Your task to perform on an android device: toggle javascript in the chrome app Image 0: 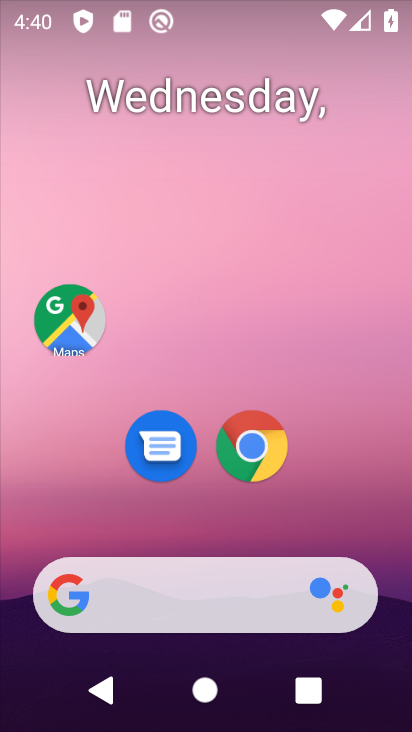
Step 0: click (253, 454)
Your task to perform on an android device: toggle javascript in the chrome app Image 1: 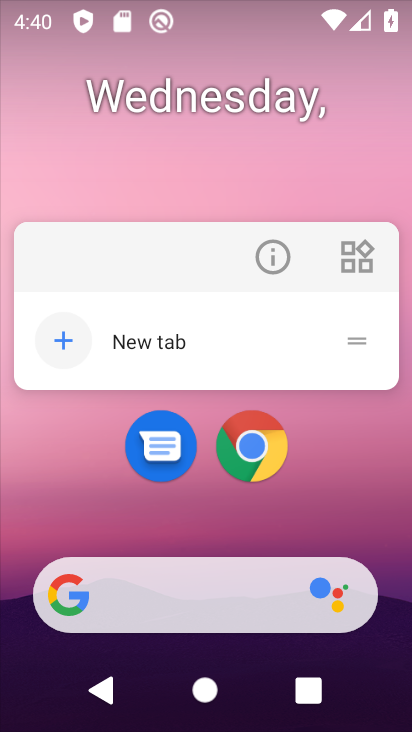
Step 1: click (253, 454)
Your task to perform on an android device: toggle javascript in the chrome app Image 2: 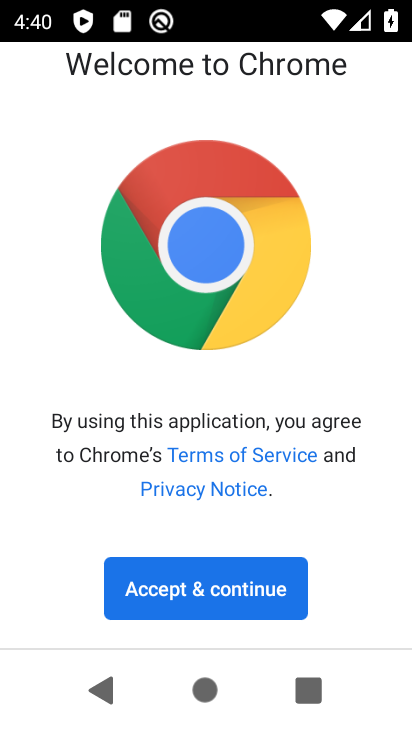
Step 2: click (161, 581)
Your task to perform on an android device: toggle javascript in the chrome app Image 3: 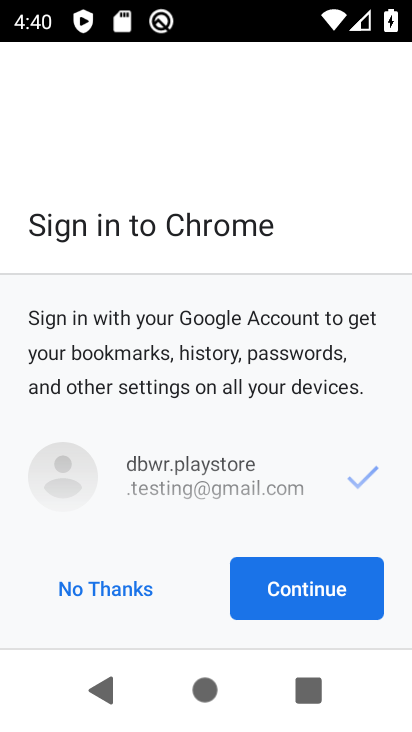
Step 3: click (266, 600)
Your task to perform on an android device: toggle javascript in the chrome app Image 4: 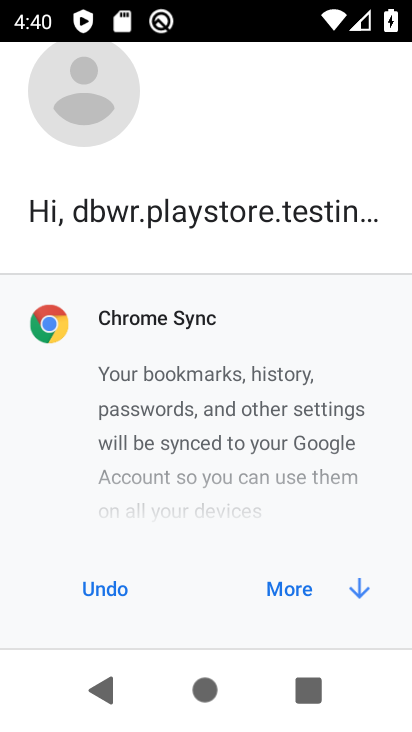
Step 4: click (265, 597)
Your task to perform on an android device: toggle javascript in the chrome app Image 5: 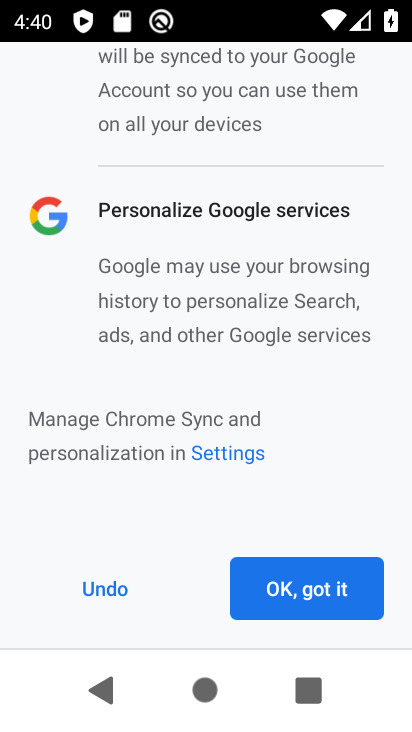
Step 5: click (334, 582)
Your task to perform on an android device: toggle javascript in the chrome app Image 6: 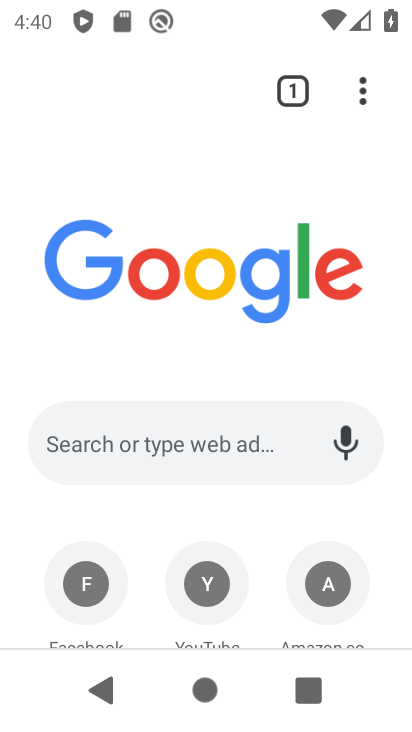
Step 6: click (353, 82)
Your task to perform on an android device: toggle javascript in the chrome app Image 7: 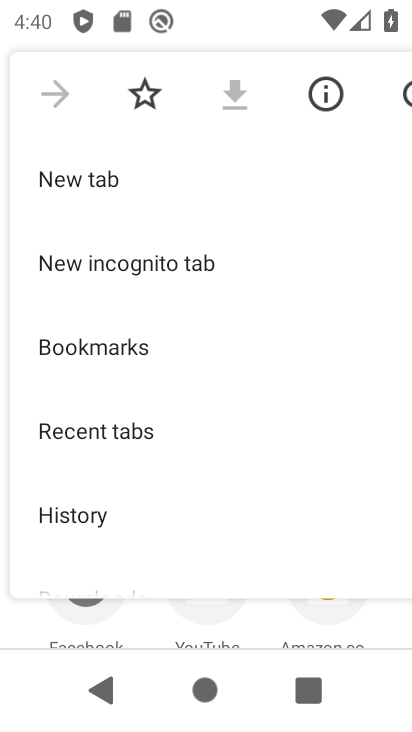
Step 7: drag from (165, 549) to (171, 170)
Your task to perform on an android device: toggle javascript in the chrome app Image 8: 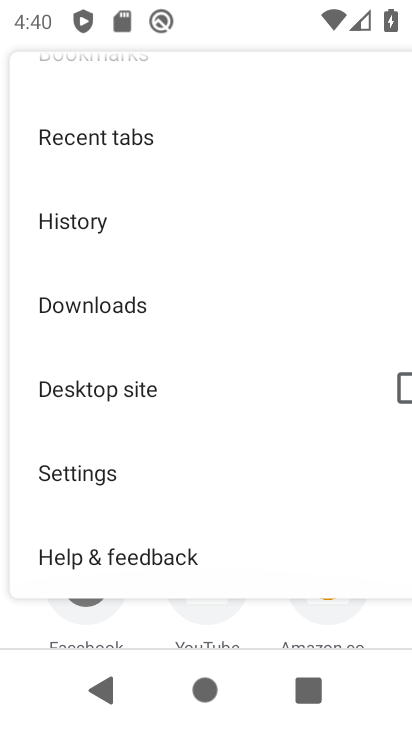
Step 8: click (84, 487)
Your task to perform on an android device: toggle javascript in the chrome app Image 9: 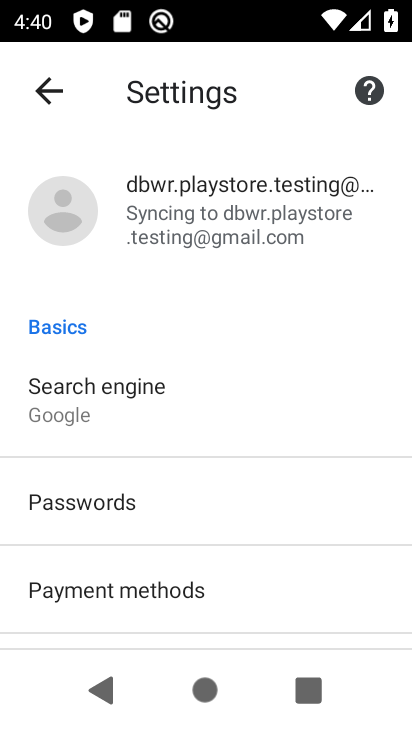
Step 9: drag from (234, 575) to (262, 116)
Your task to perform on an android device: toggle javascript in the chrome app Image 10: 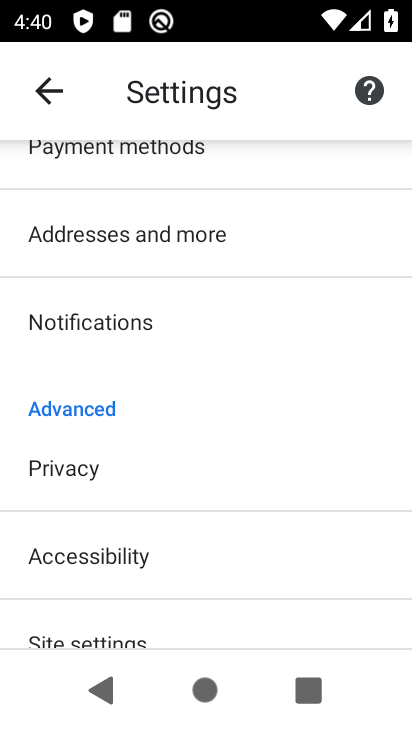
Step 10: click (163, 617)
Your task to perform on an android device: toggle javascript in the chrome app Image 11: 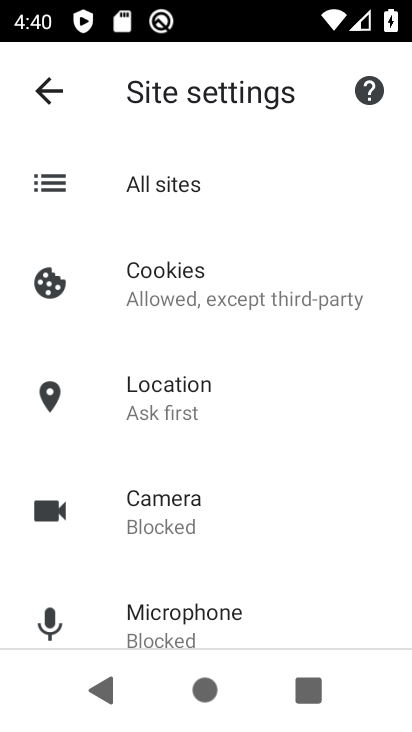
Step 11: drag from (231, 533) to (273, 97)
Your task to perform on an android device: toggle javascript in the chrome app Image 12: 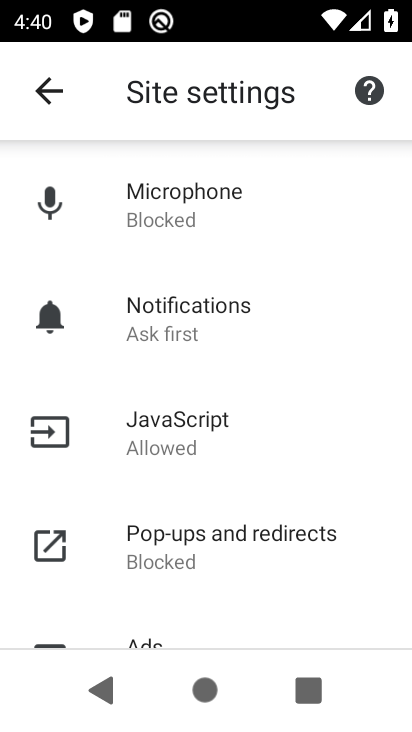
Step 12: click (165, 444)
Your task to perform on an android device: toggle javascript in the chrome app Image 13: 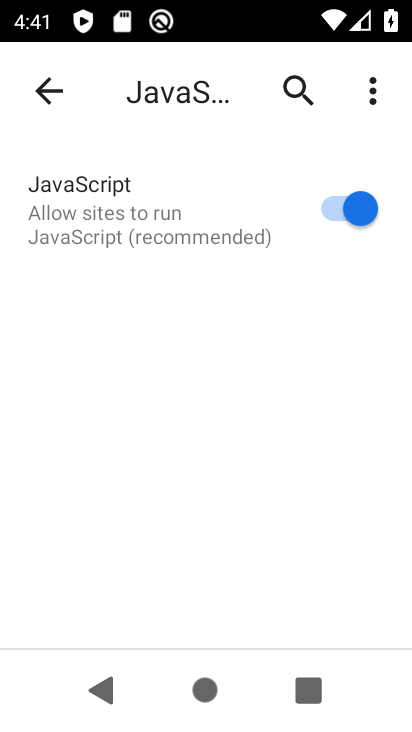
Step 13: click (352, 214)
Your task to perform on an android device: toggle javascript in the chrome app Image 14: 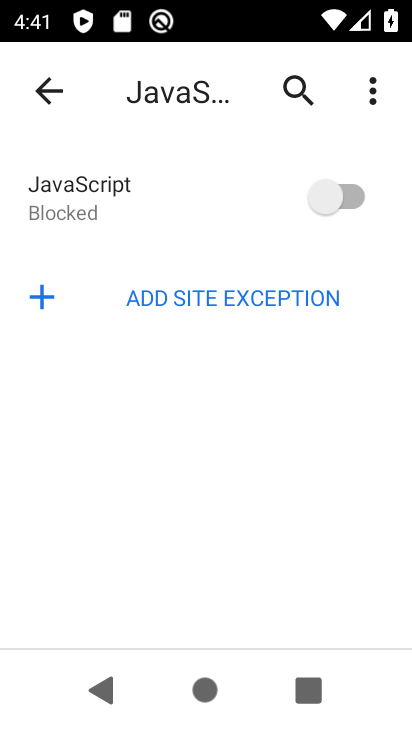
Step 14: task complete